Your task to perform on an android device: toggle show notifications on the lock screen Image 0: 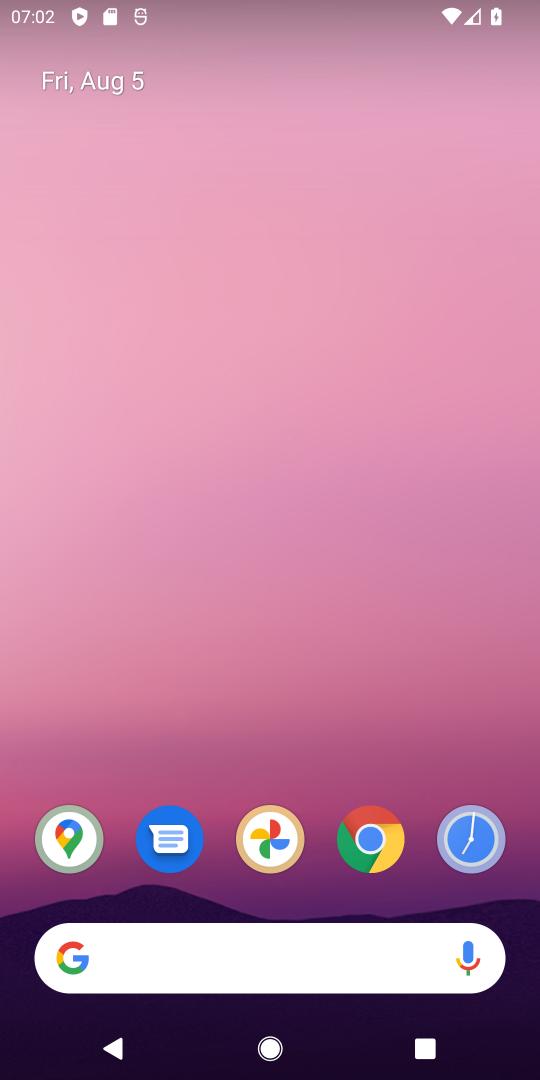
Step 0: drag from (309, 896) to (313, 2)
Your task to perform on an android device: toggle show notifications on the lock screen Image 1: 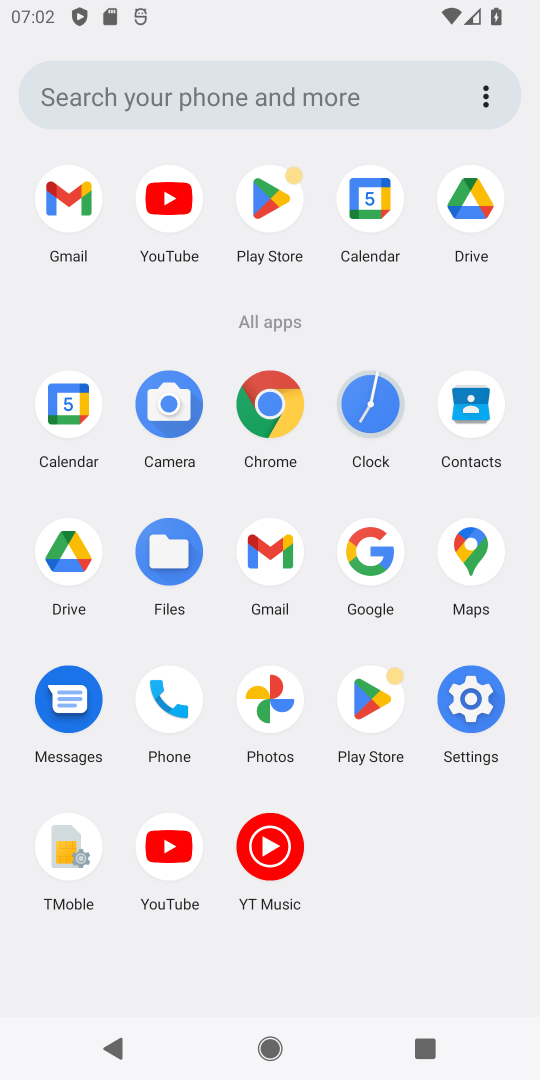
Step 1: click (464, 712)
Your task to perform on an android device: toggle show notifications on the lock screen Image 2: 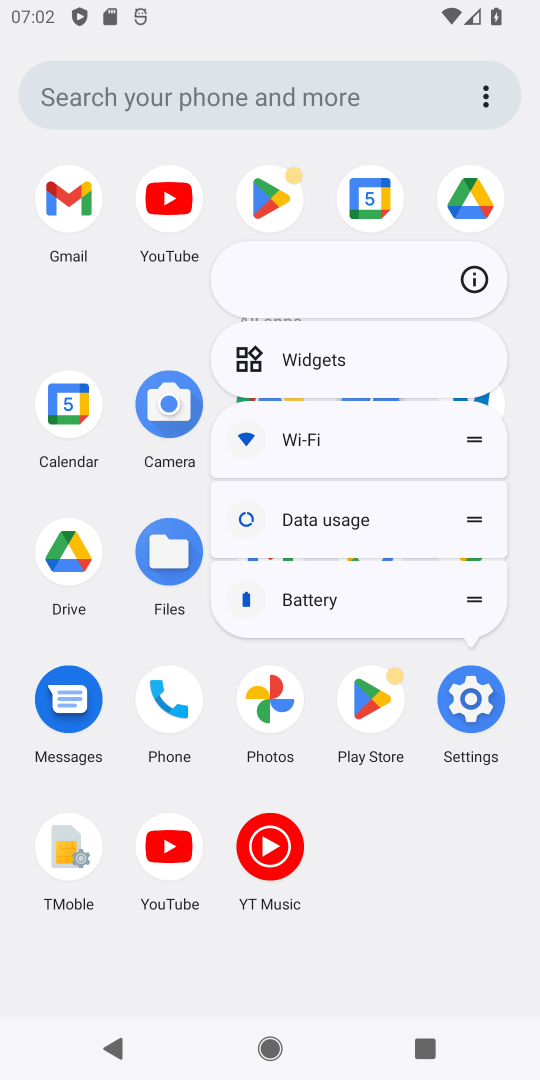
Step 2: click (464, 711)
Your task to perform on an android device: toggle show notifications on the lock screen Image 3: 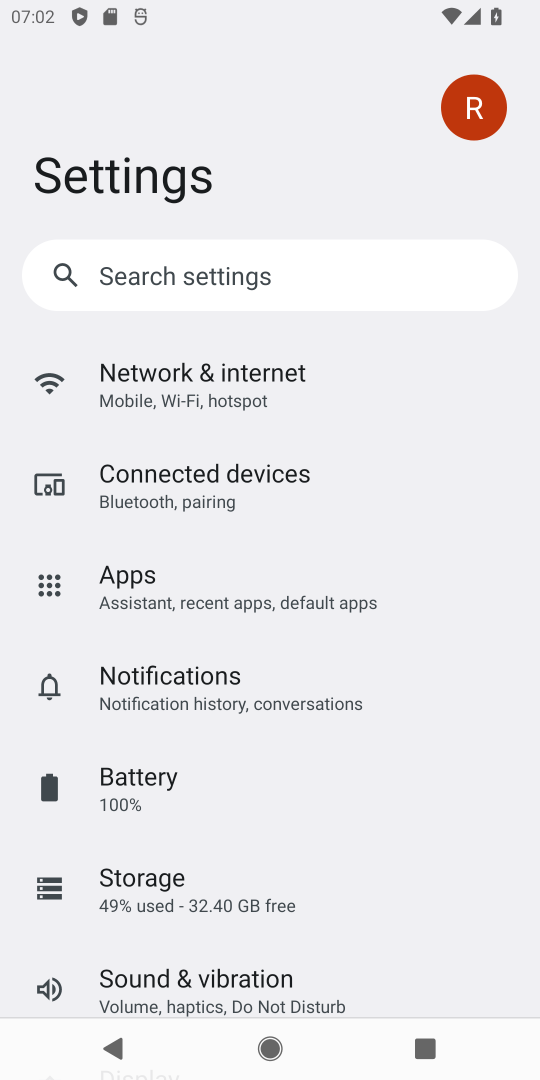
Step 3: click (157, 679)
Your task to perform on an android device: toggle show notifications on the lock screen Image 4: 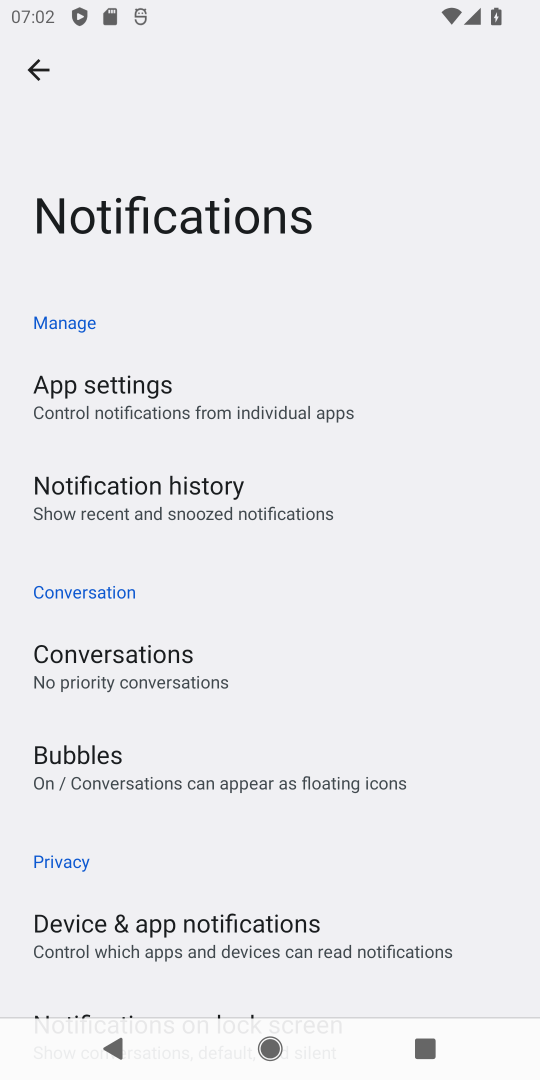
Step 4: drag from (189, 955) to (219, 483)
Your task to perform on an android device: toggle show notifications on the lock screen Image 5: 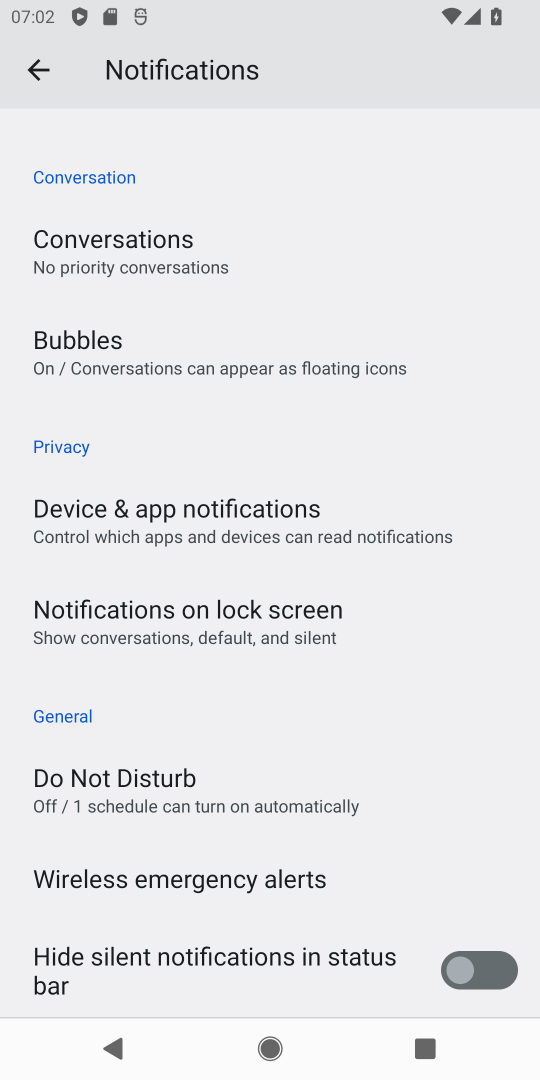
Step 5: drag from (225, 951) to (225, 651)
Your task to perform on an android device: toggle show notifications on the lock screen Image 6: 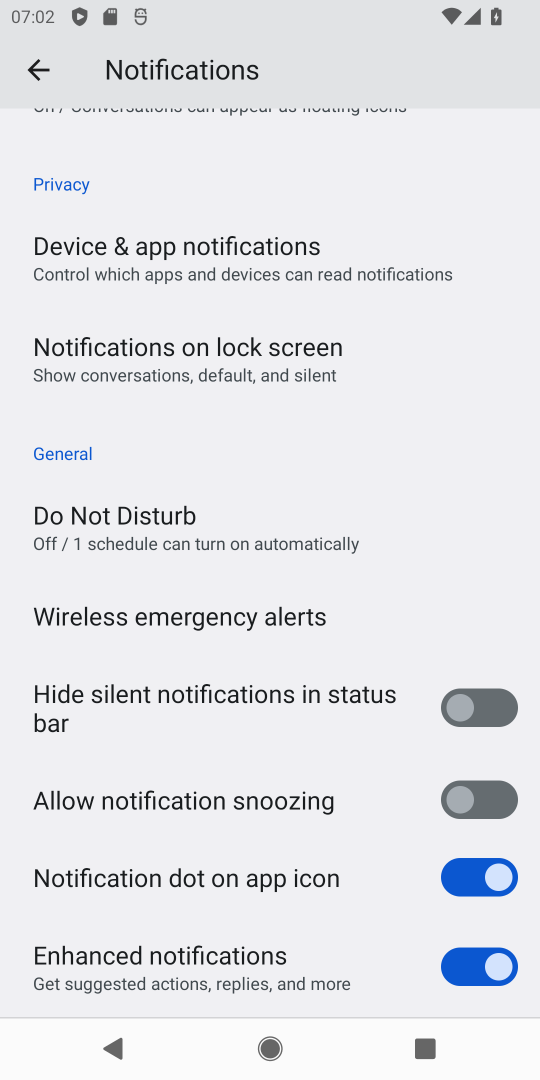
Step 6: click (181, 355)
Your task to perform on an android device: toggle show notifications on the lock screen Image 7: 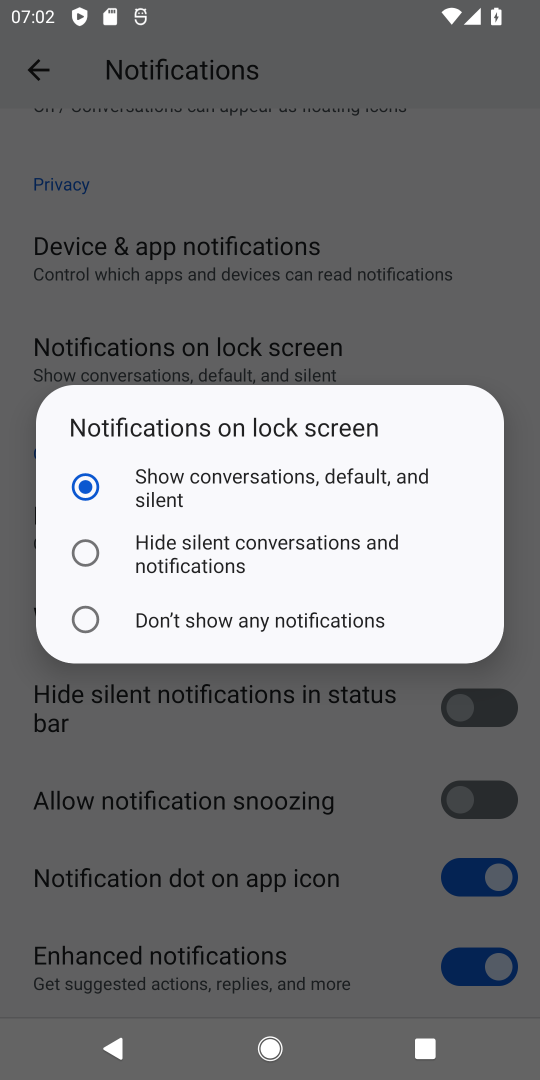
Step 7: click (77, 553)
Your task to perform on an android device: toggle show notifications on the lock screen Image 8: 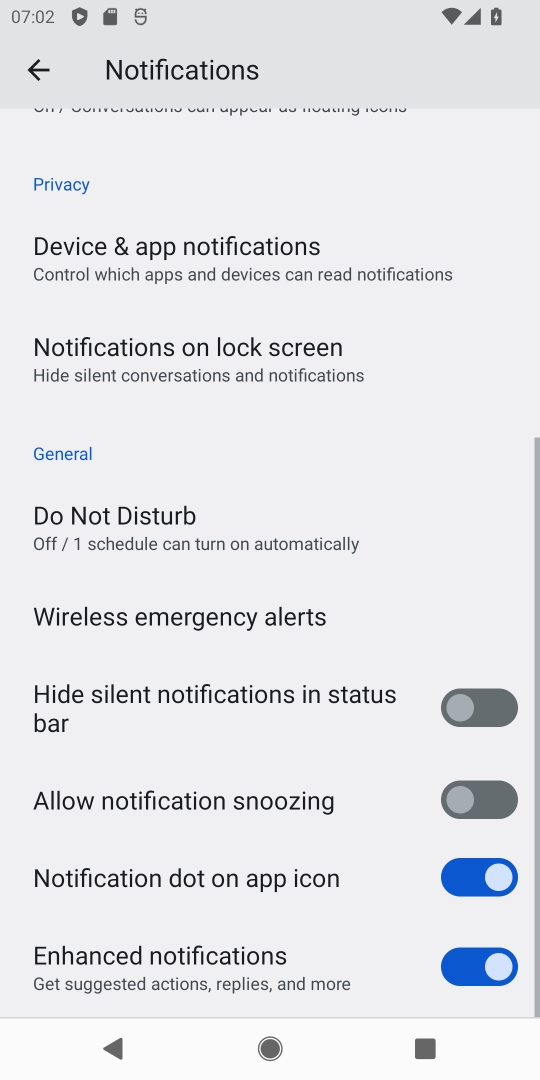
Step 8: task complete